Your task to perform on an android device: read, delete, or share a saved page in the chrome app Image 0: 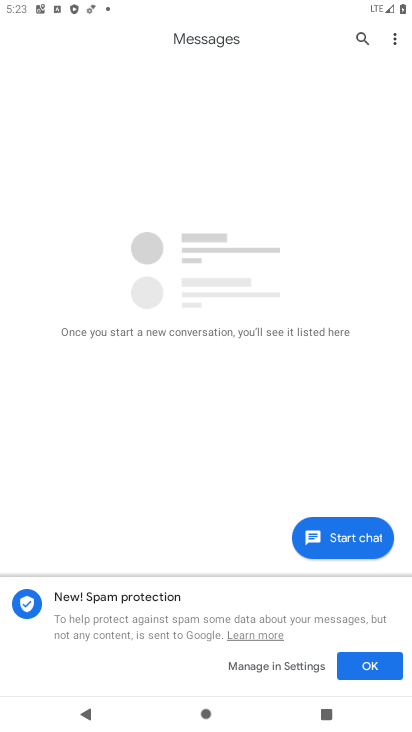
Step 0: press home button
Your task to perform on an android device: read, delete, or share a saved page in the chrome app Image 1: 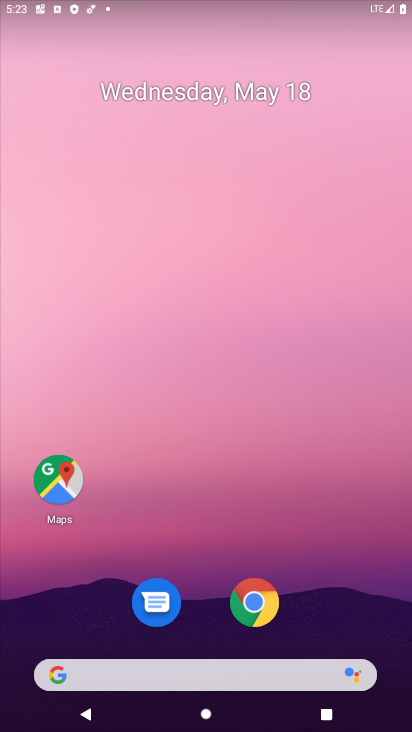
Step 1: drag from (319, 609) to (293, 83)
Your task to perform on an android device: read, delete, or share a saved page in the chrome app Image 2: 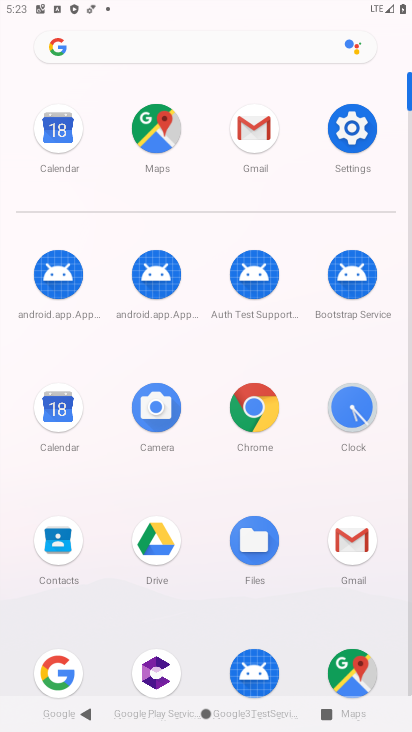
Step 2: click (260, 416)
Your task to perform on an android device: read, delete, or share a saved page in the chrome app Image 3: 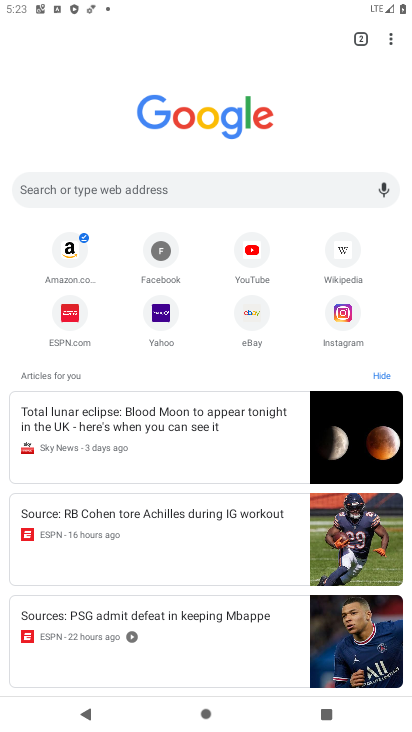
Step 3: click (388, 39)
Your task to perform on an android device: read, delete, or share a saved page in the chrome app Image 4: 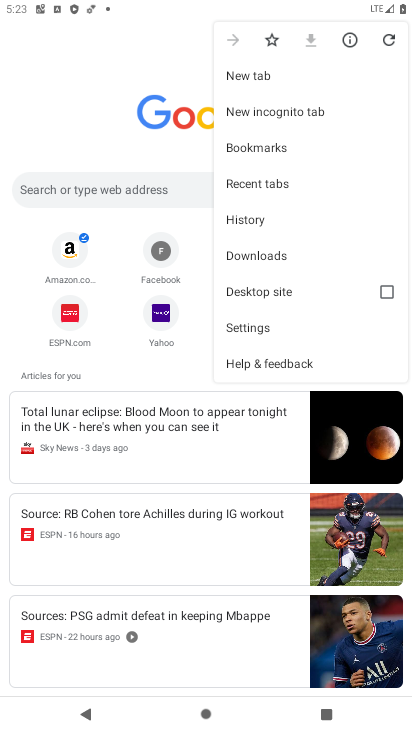
Step 4: click (257, 254)
Your task to perform on an android device: read, delete, or share a saved page in the chrome app Image 5: 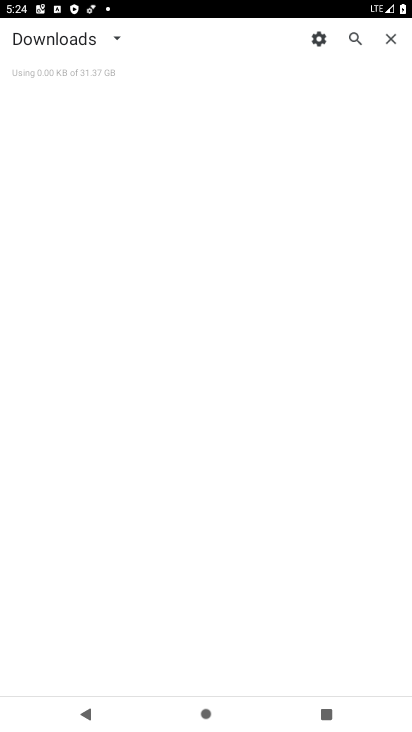
Step 5: task complete